Your task to perform on an android device: open app "Microsoft Excel" Image 0: 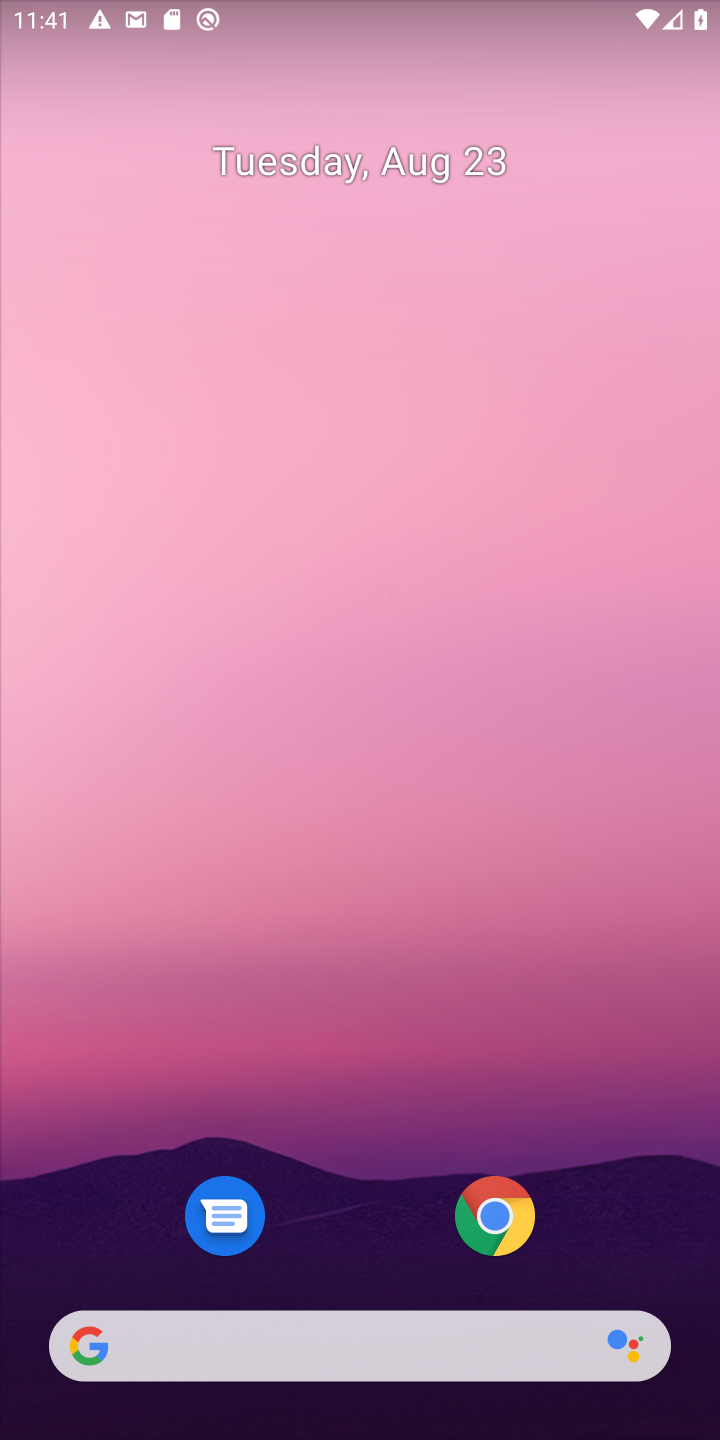
Step 0: drag from (377, 1236) to (505, 59)
Your task to perform on an android device: open app "Microsoft Excel" Image 1: 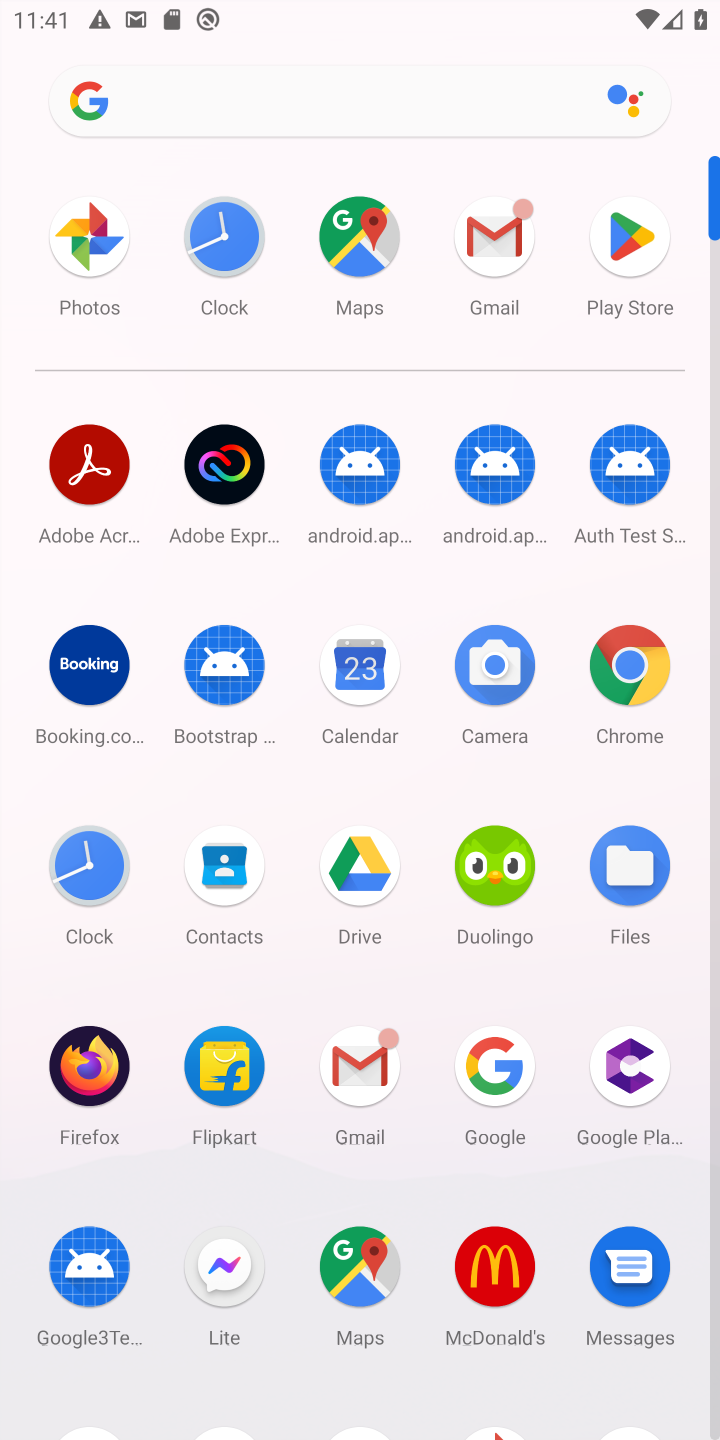
Step 1: click (630, 240)
Your task to perform on an android device: open app "Microsoft Excel" Image 2: 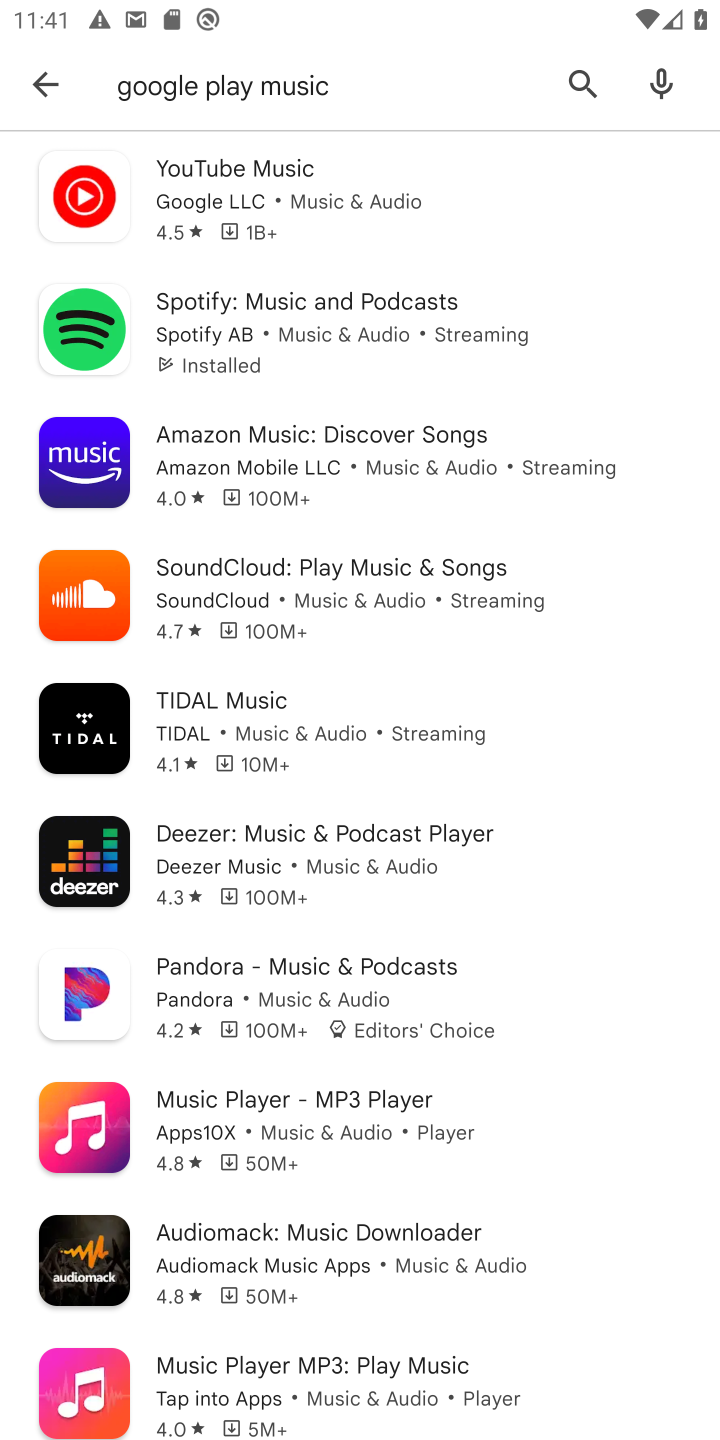
Step 2: press back button
Your task to perform on an android device: open app "Microsoft Excel" Image 3: 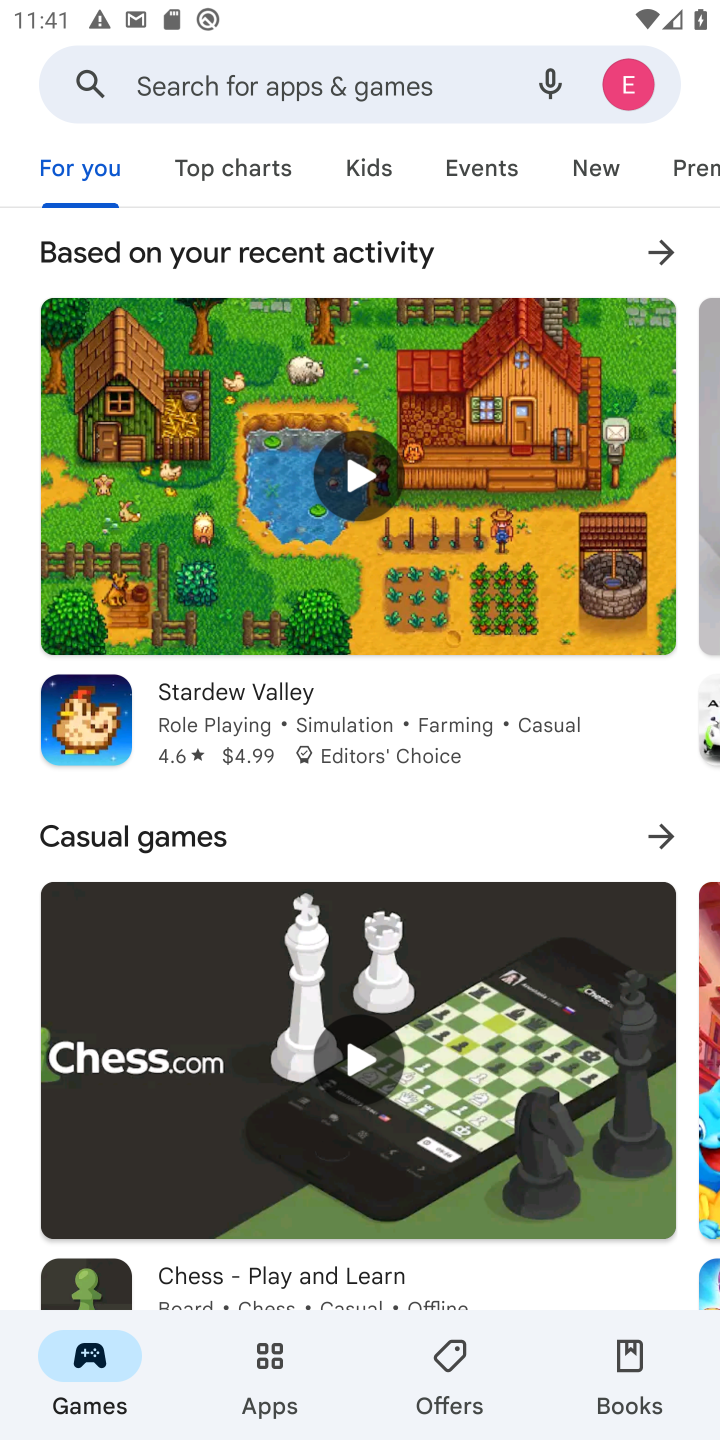
Step 3: click (353, 89)
Your task to perform on an android device: open app "Microsoft Excel" Image 4: 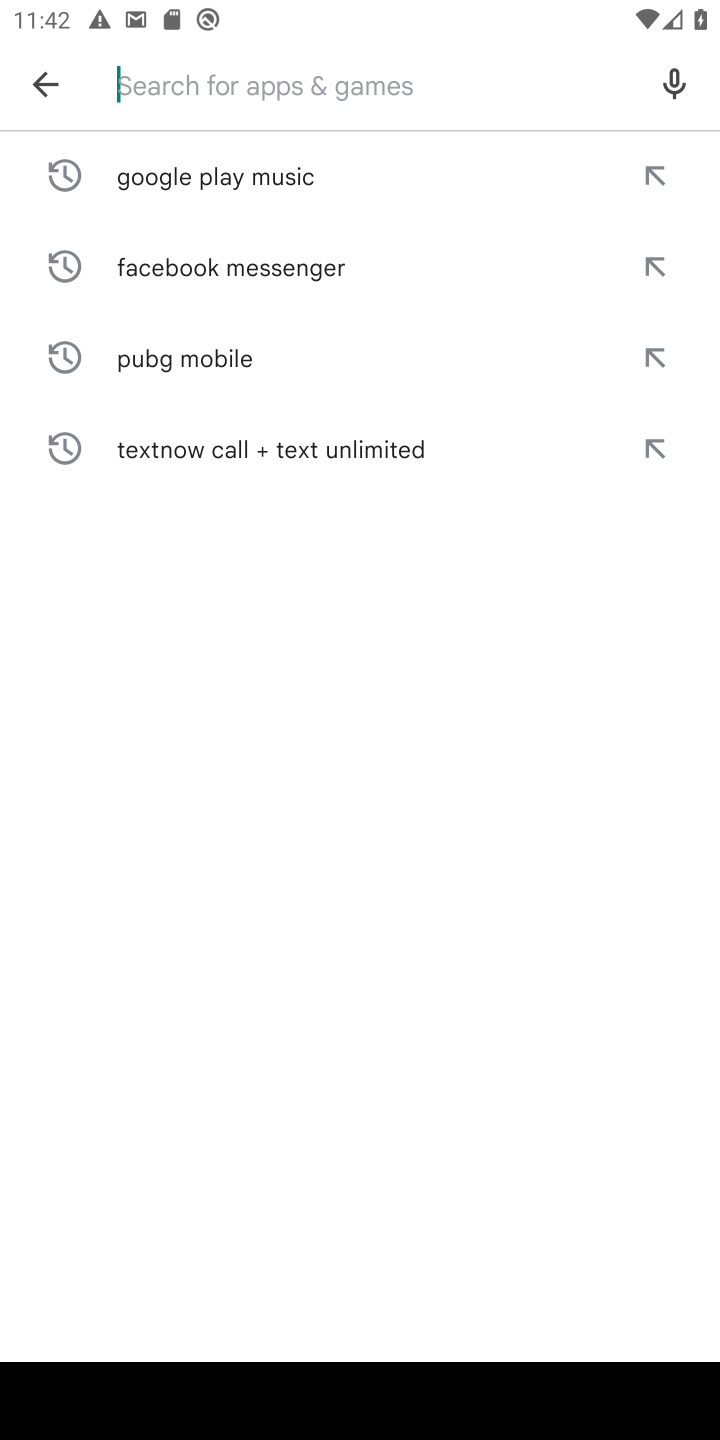
Step 4: type "Microsoft Excel"
Your task to perform on an android device: open app "Microsoft Excel" Image 5: 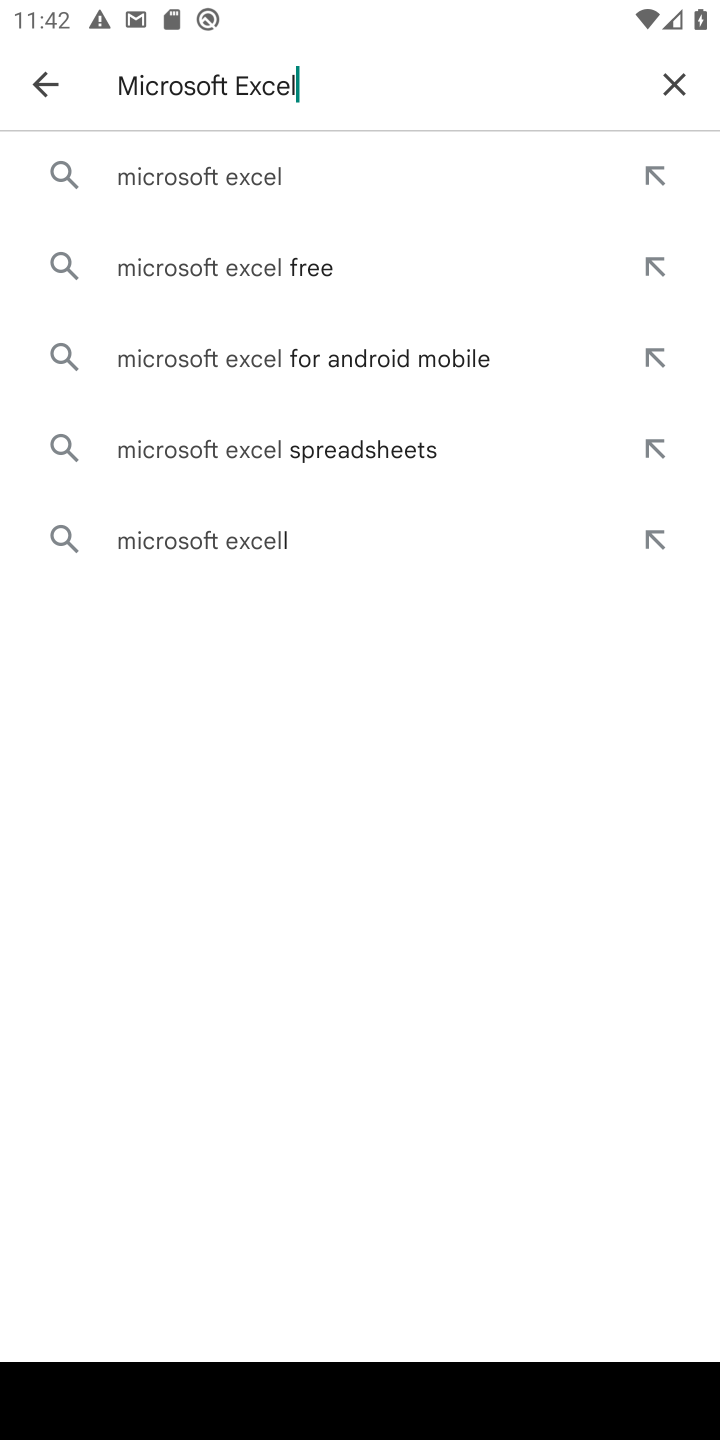
Step 5: click (202, 178)
Your task to perform on an android device: open app "Microsoft Excel" Image 6: 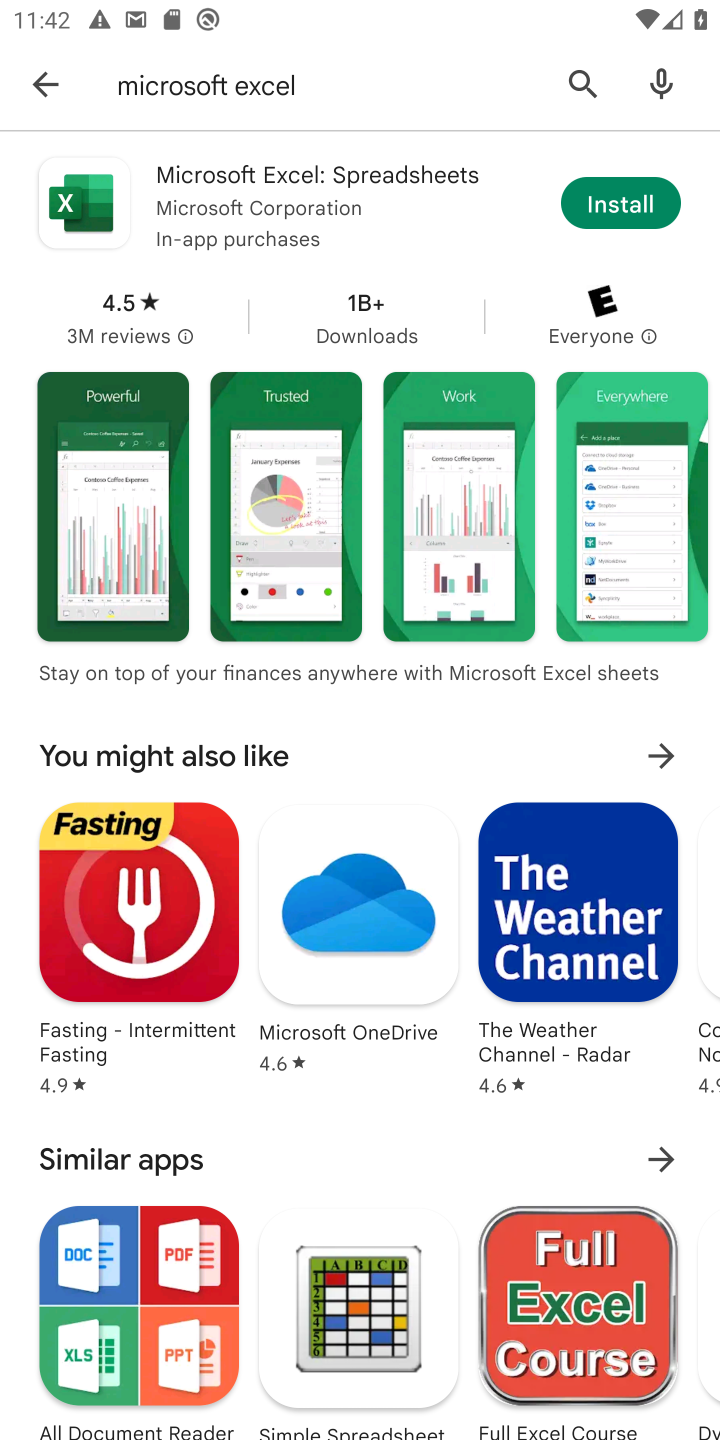
Step 6: task complete